Your task to perform on an android device: all mails in gmail Image 0: 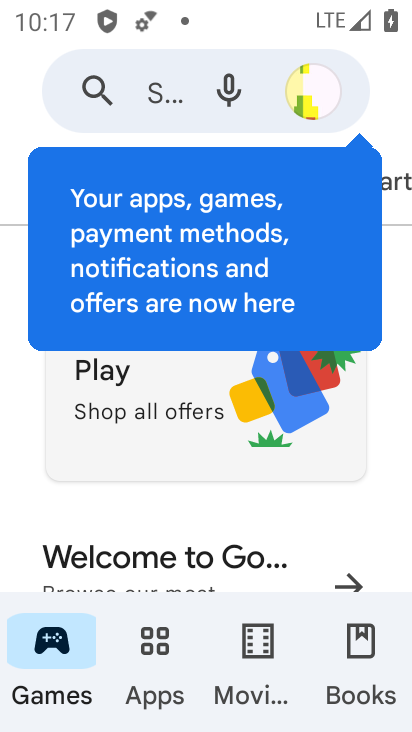
Step 0: press home button
Your task to perform on an android device: all mails in gmail Image 1: 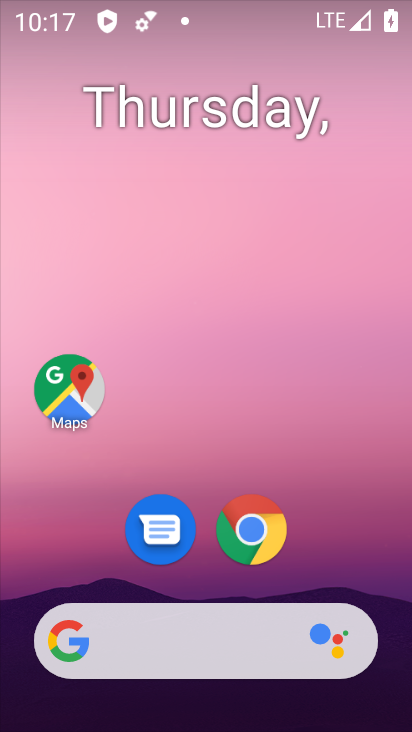
Step 1: drag from (178, 582) to (248, 77)
Your task to perform on an android device: all mails in gmail Image 2: 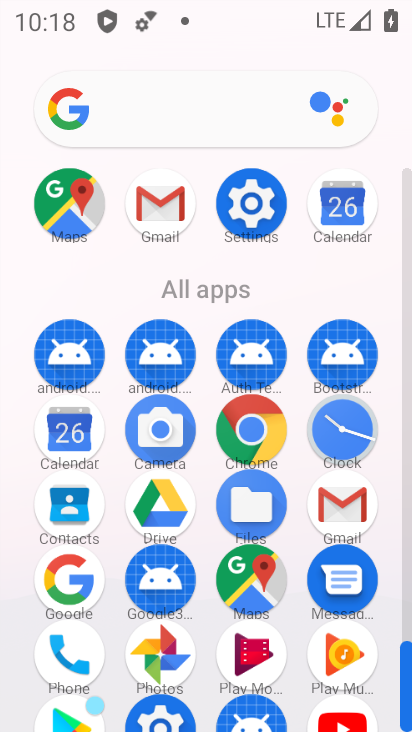
Step 2: click (151, 218)
Your task to perform on an android device: all mails in gmail Image 3: 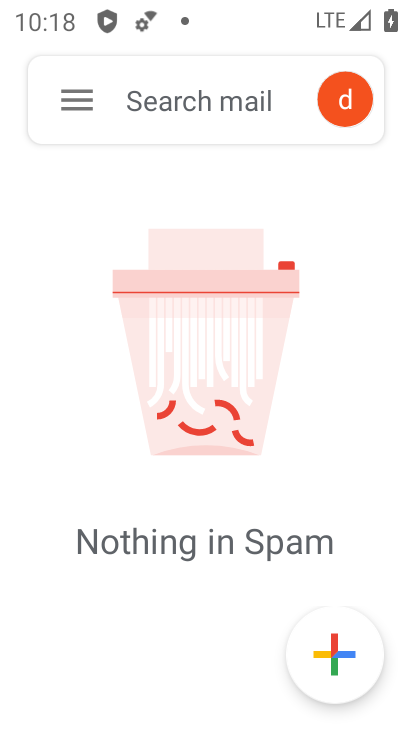
Step 3: click (69, 107)
Your task to perform on an android device: all mails in gmail Image 4: 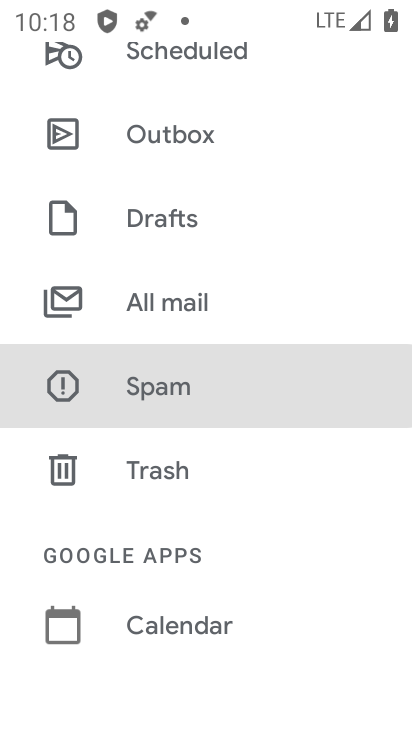
Step 4: click (198, 294)
Your task to perform on an android device: all mails in gmail Image 5: 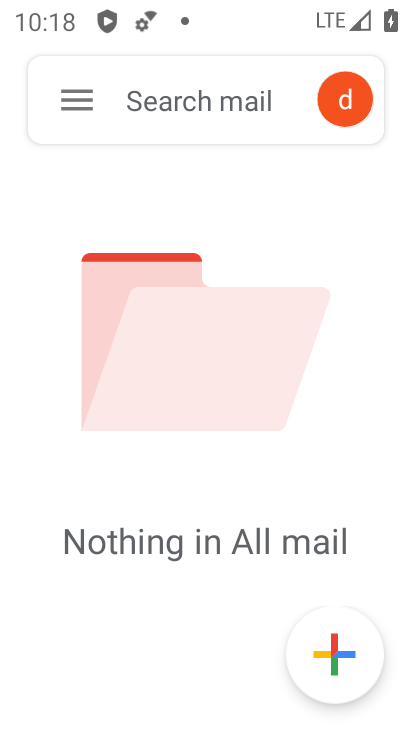
Step 5: task complete